Your task to perform on an android device: Search for Mexican restaurants on Maps Image 0: 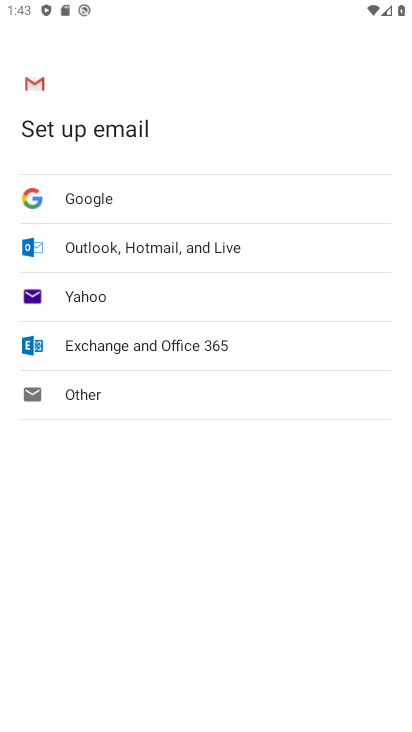
Step 0: press home button
Your task to perform on an android device: Search for Mexican restaurants on Maps Image 1: 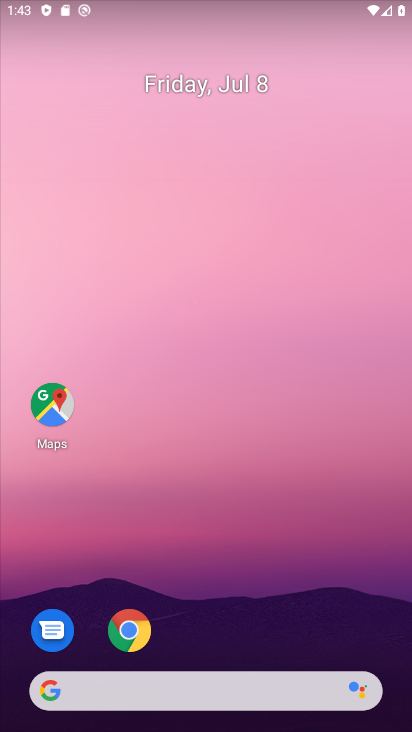
Step 1: click (55, 400)
Your task to perform on an android device: Search for Mexican restaurants on Maps Image 2: 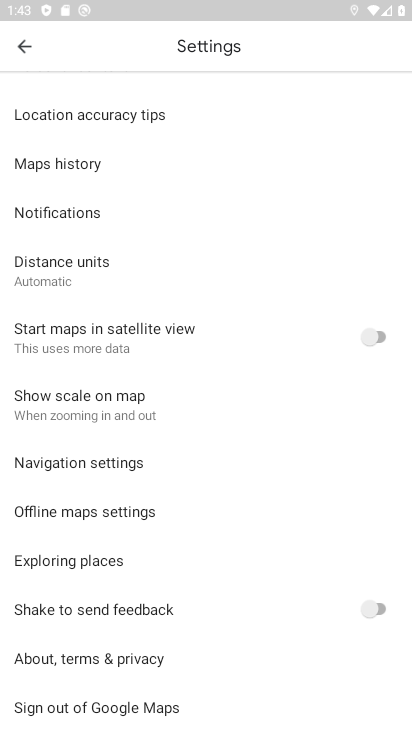
Step 2: click (29, 46)
Your task to perform on an android device: Search for Mexican restaurants on Maps Image 3: 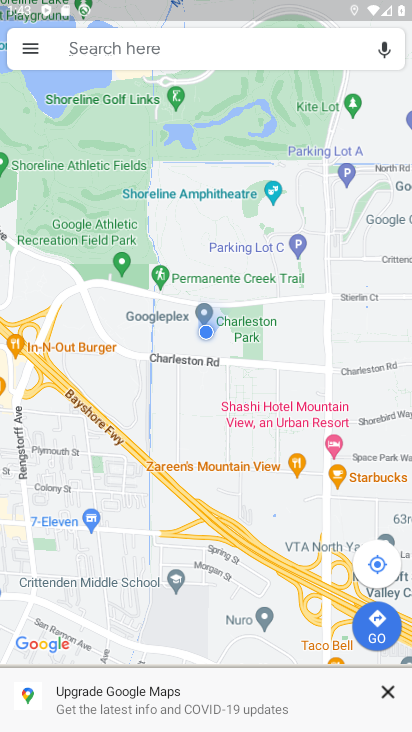
Step 3: click (110, 51)
Your task to perform on an android device: Search for Mexican restaurants on Maps Image 4: 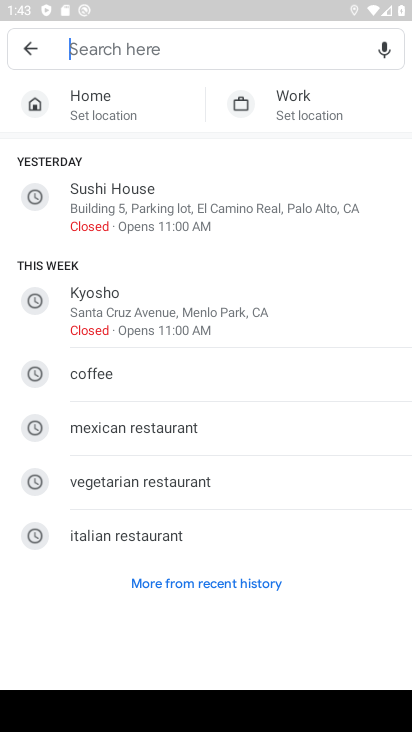
Step 4: type "mexican"
Your task to perform on an android device: Search for Mexican restaurants on Maps Image 5: 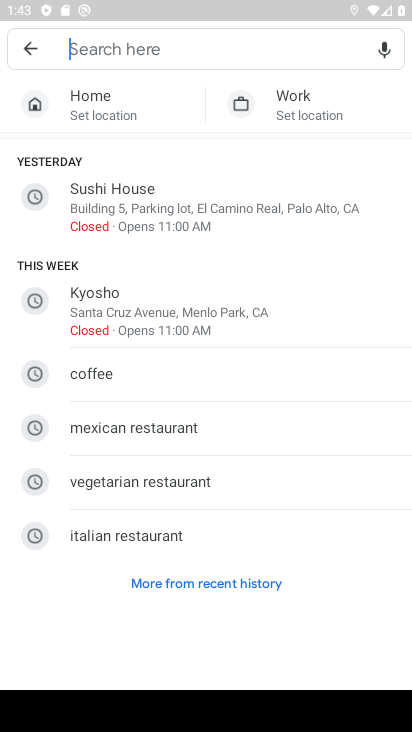
Step 5: click (103, 426)
Your task to perform on an android device: Search for Mexican restaurants on Maps Image 6: 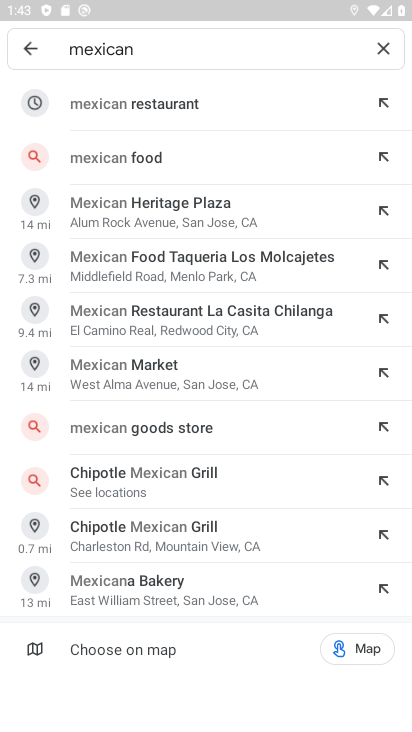
Step 6: click (151, 102)
Your task to perform on an android device: Search for Mexican restaurants on Maps Image 7: 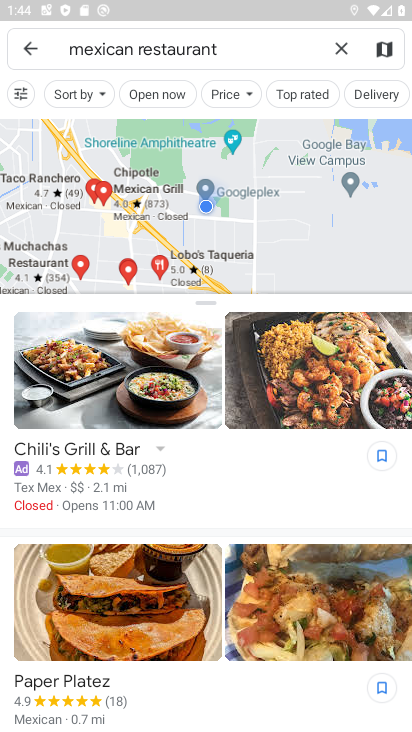
Step 7: task complete